Your task to perform on an android device: turn smart compose on in the gmail app Image 0: 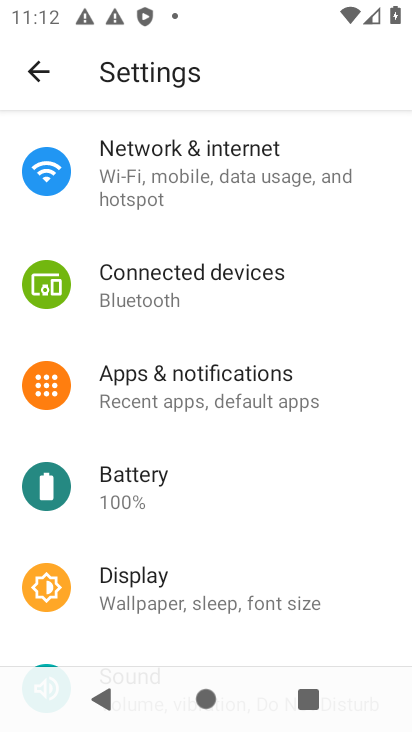
Step 0: press back button
Your task to perform on an android device: turn smart compose on in the gmail app Image 1: 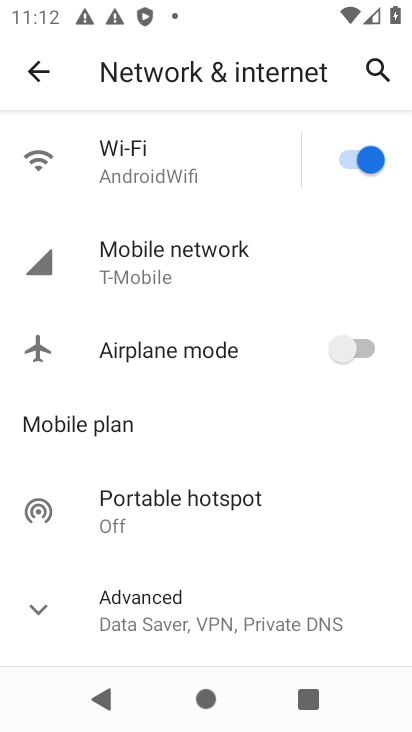
Step 1: press home button
Your task to perform on an android device: turn smart compose on in the gmail app Image 2: 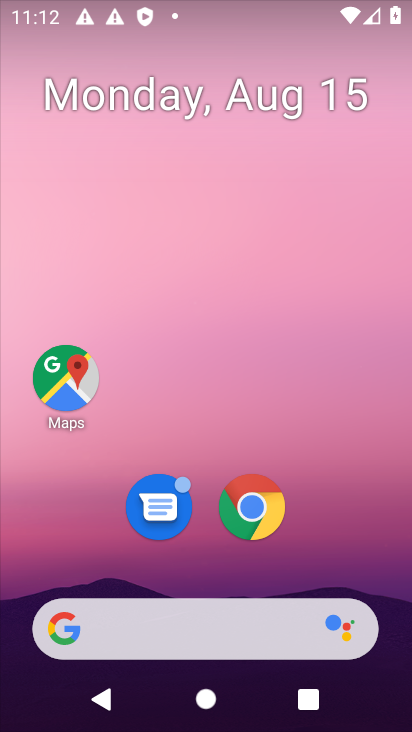
Step 2: drag from (216, 569) to (229, 210)
Your task to perform on an android device: turn smart compose on in the gmail app Image 3: 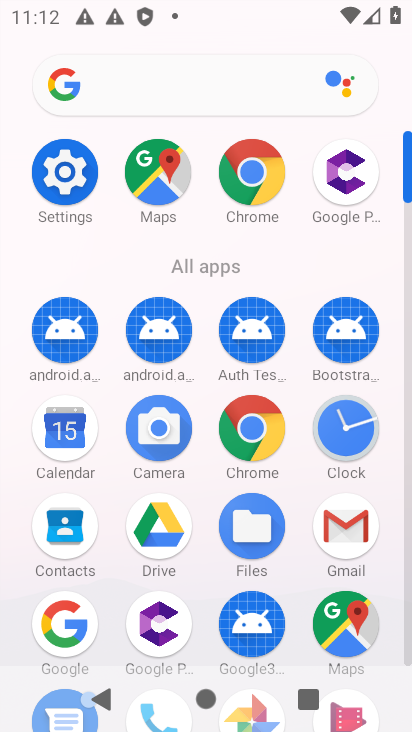
Step 3: click (340, 521)
Your task to perform on an android device: turn smart compose on in the gmail app Image 4: 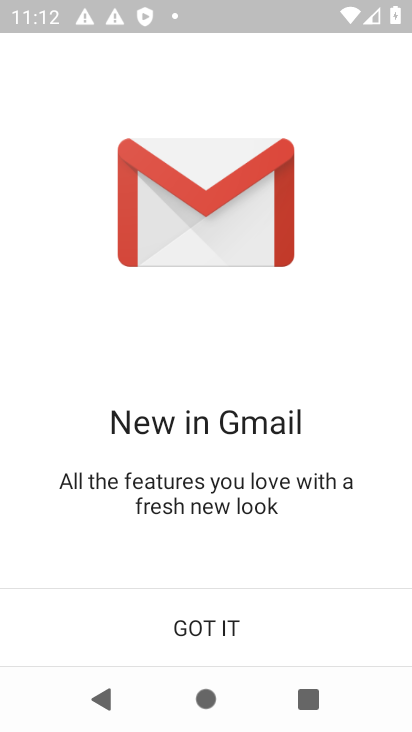
Step 4: click (204, 632)
Your task to perform on an android device: turn smart compose on in the gmail app Image 5: 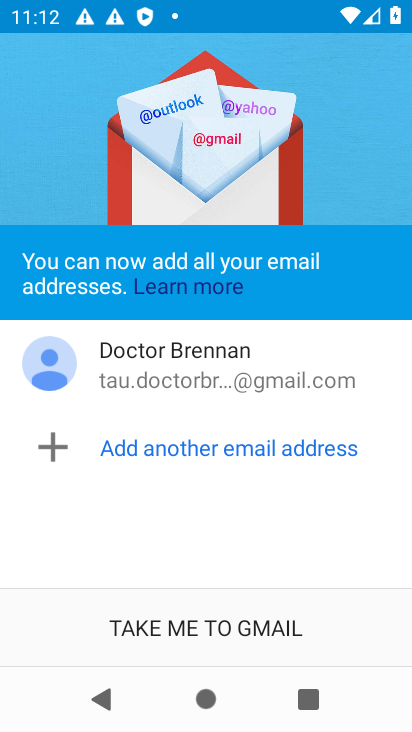
Step 5: click (208, 629)
Your task to perform on an android device: turn smart compose on in the gmail app Image 6: 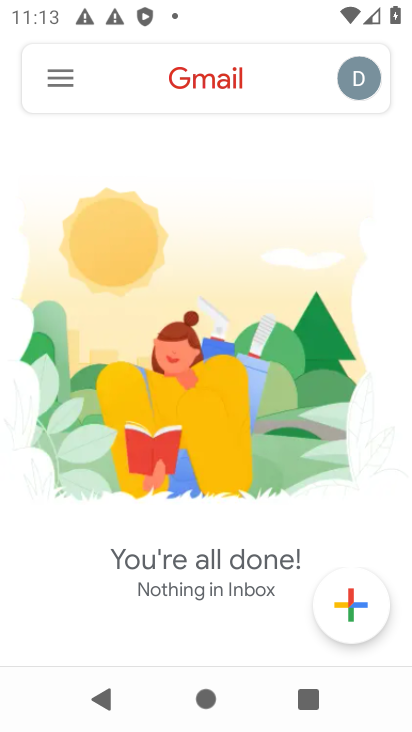
Step 6: click (62, 73)
Your task to perform on an android device: turn smart compose on in the gmail app Image 7: 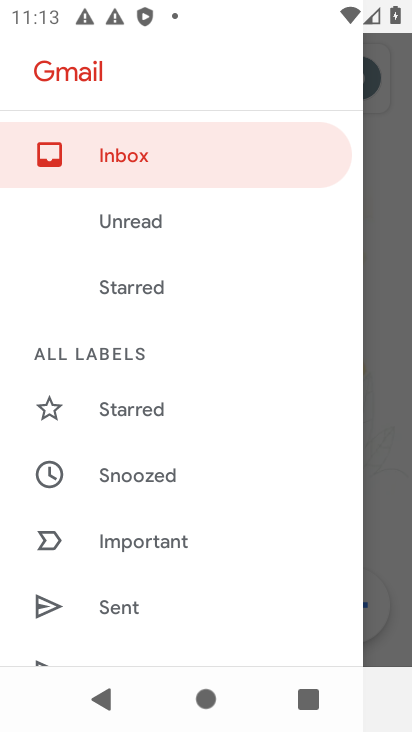
Step 7: drag from (223, 560) to (220, 200)
Your task to perform on an android device: turn smart compose on in the gmail app Image 8: 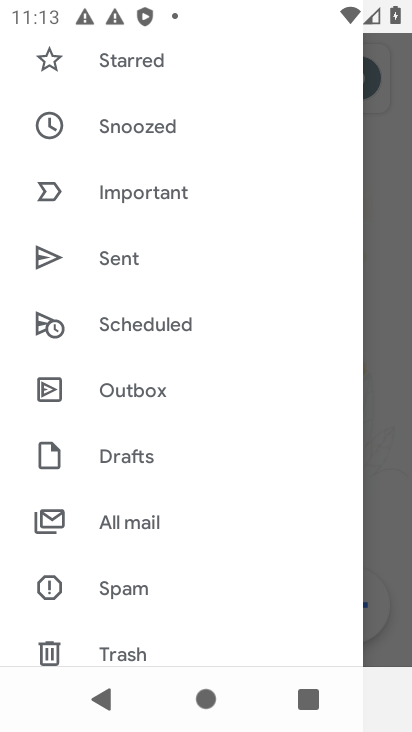
Step 8: drag from (186, 649) to (161, 322)
Your task to perform on an android device: turn smart compose on in the gmail app Image 9: 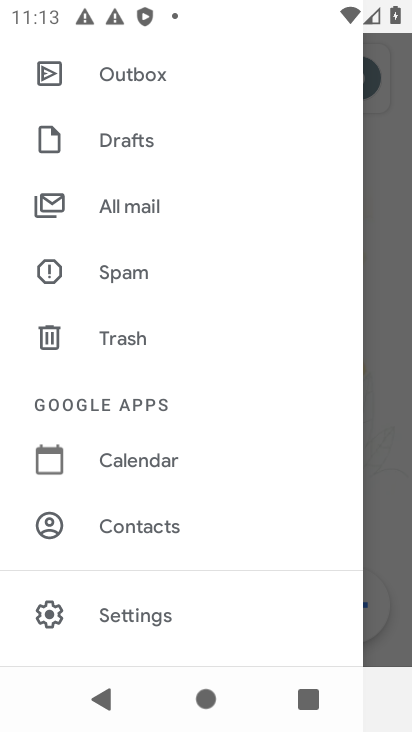
Step 9: click (112, 607)
Your task to perform on an android device: turn smart compose on in the gmail app Image 10: 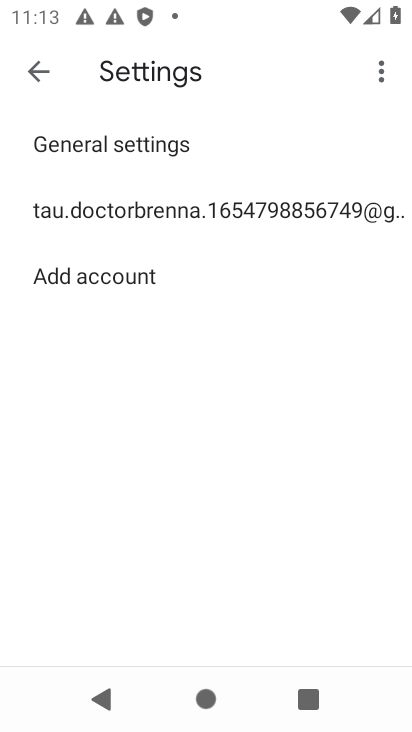
Step 10: click (82, 137)
Your task to perform on an android device: turn smart compose on in the gmail app Image 11: 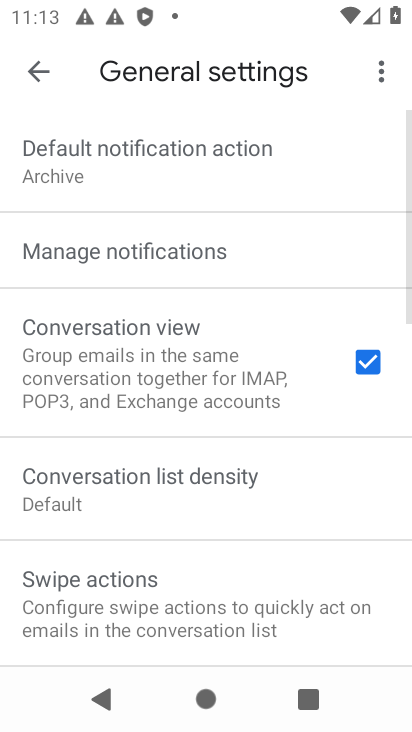
Step 11: drag from (222, 509) to (181, 221)
Your task to perform on an android device: turn smart compose on in the gmail app Image 12: 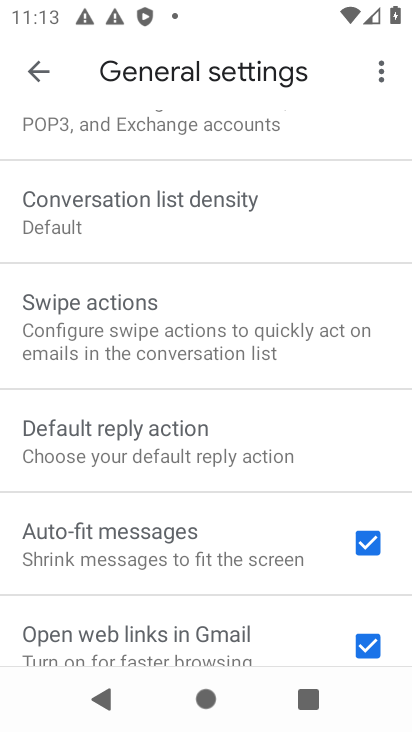
Step 12: drag from (233, 623) to (178, 348)
Your task to perform on an android device: turn smart compose on in the gmail app Image 13: 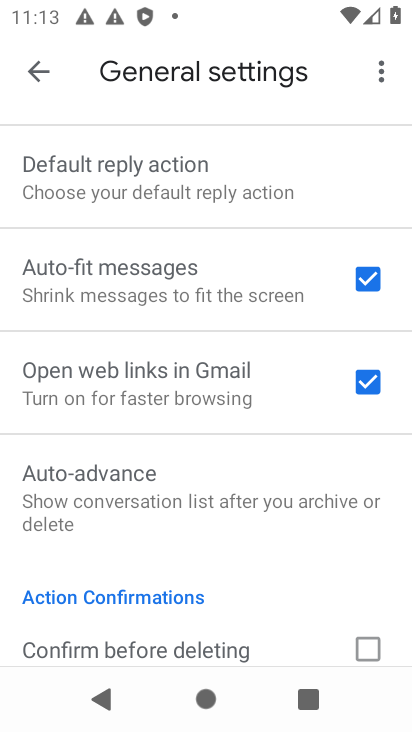
Step 13: drag from (203, 532) to (178, 170)
Your task to perform on an android device: turn smart compose on in the gmail app Image 14: 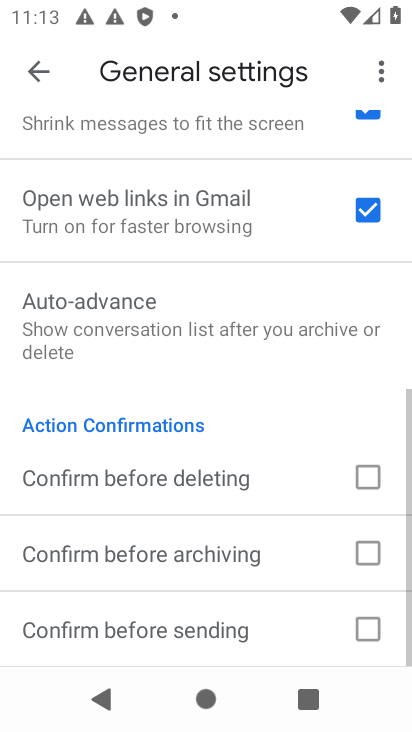
Step 14: drag from (221, 488) to (180, 178)
Your task to perform on an android device: turn smart compose on in the gmail app Image 15: 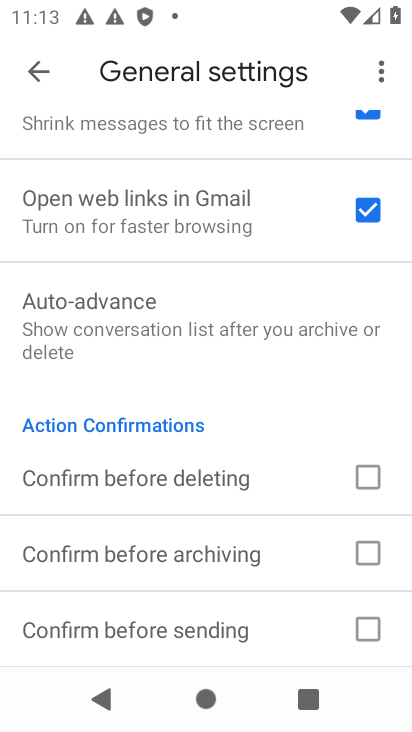
Step 15: click (37, 67)
Your task to perform on an android device: turn smart compose on in the gmail app Image 16: 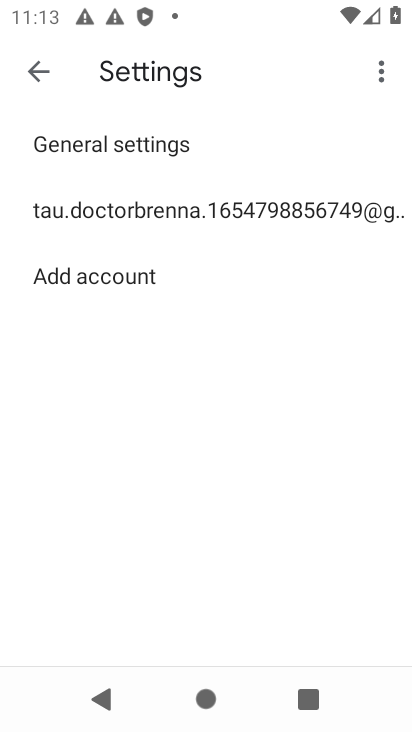
Step 16: click (147, 212)
Your task to perform on an android device: turn smart compose on in the gmail app Image 17: 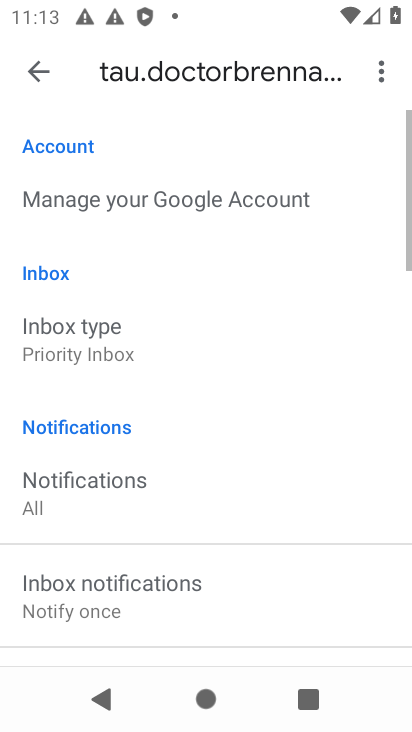
Step 17: task complete